Your task to perform on an android device: turn off smart reply in the gmail app Image 0: 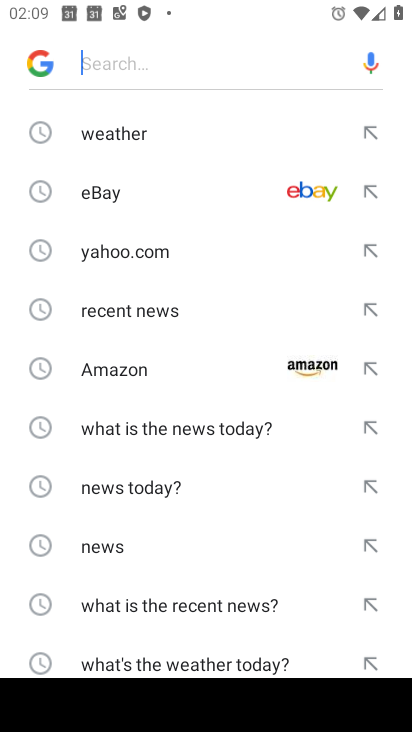
Step 0: press home button
Your task to perform on an android device: turn off smart reply in the gmail app Image 1: 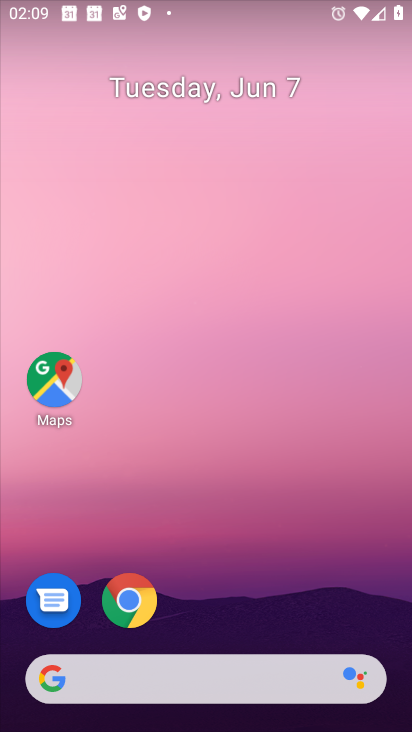
Step 1: drag from (201, 727) to (180, 60)
Your task to perform on an android device: turn off smart reply in the gmail app Image 2: 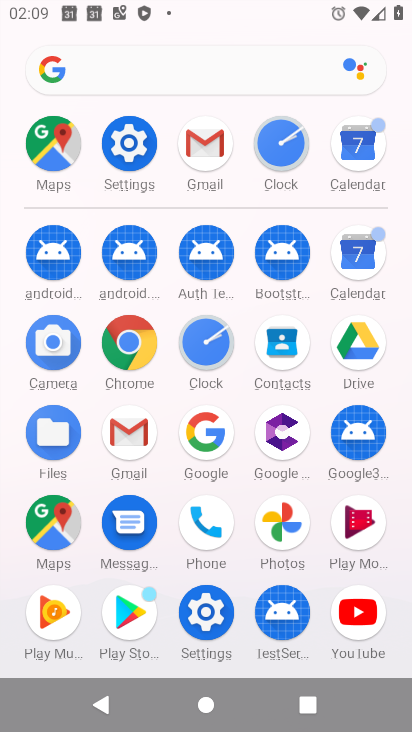
Step 2: click (132, 441)
Your task to perform on an android device: turn off smart reply in the gmail app Image 3: 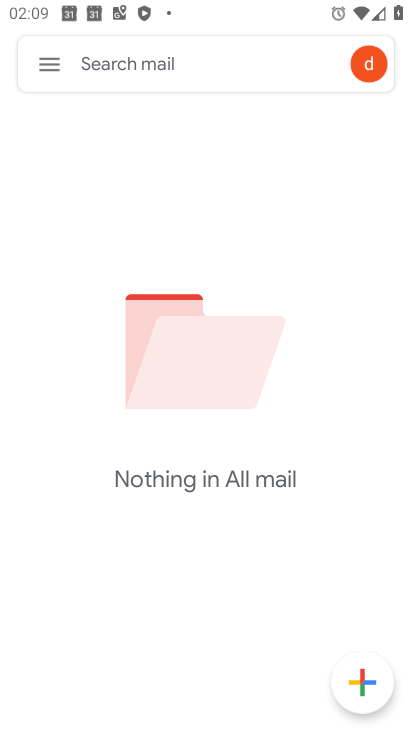
Step 3: click (49, 66)
Your task to perform on an android device: turn off smart reply in the gmail app Image 4: 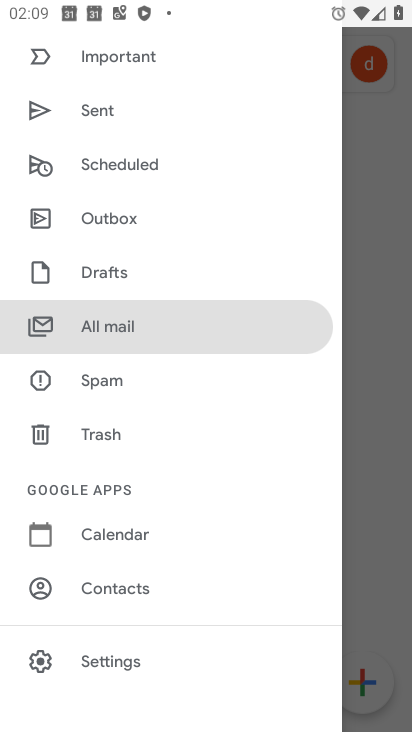
Step 4: click (119, 657)
Your task to perform on an android device: turn off smart reply in the gmail app Image 5: 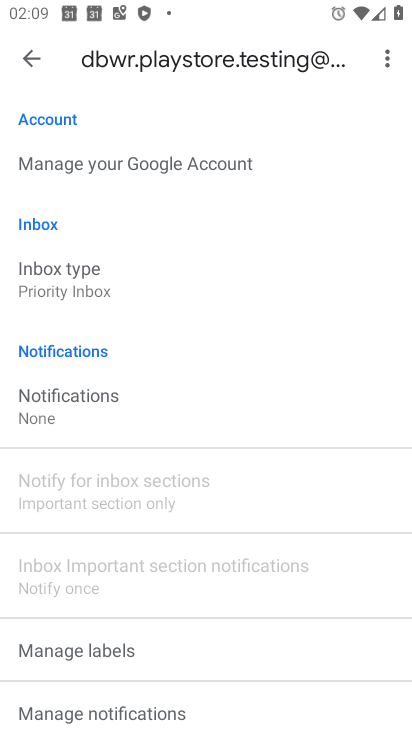
Step 5: drag from (153, 687) to (153, 365)
Your task to perform on an android device: turn off smart reply in the gmail app Image 6: 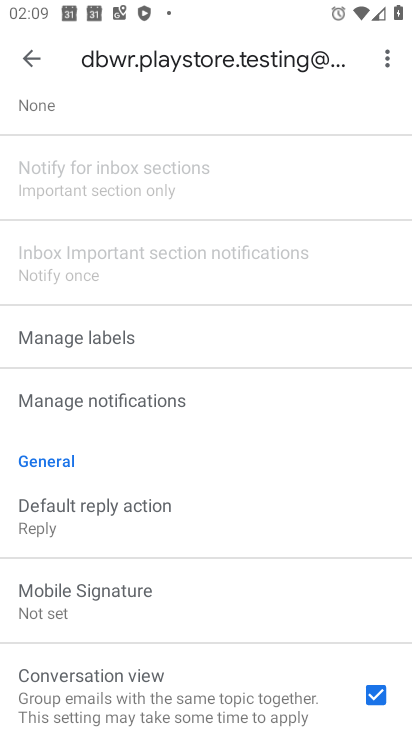
Step 6: drag from (182, 685) to (175, 285)
Your task to perform on an android device: turn off smart reply in the gmail app Image 7: 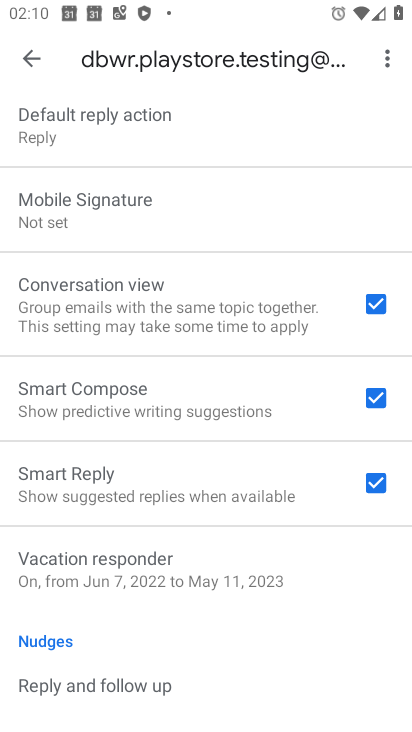
Step 7: click (375, 481)
Your task to perform on an android device: turn off smart reply in the gmail app Image 8: 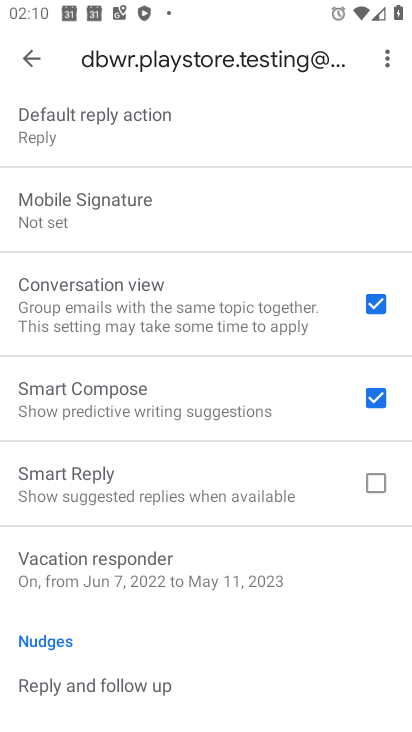
Step 8: task complete